Your task to perform on an android device: Do I have any events today? Image 0: 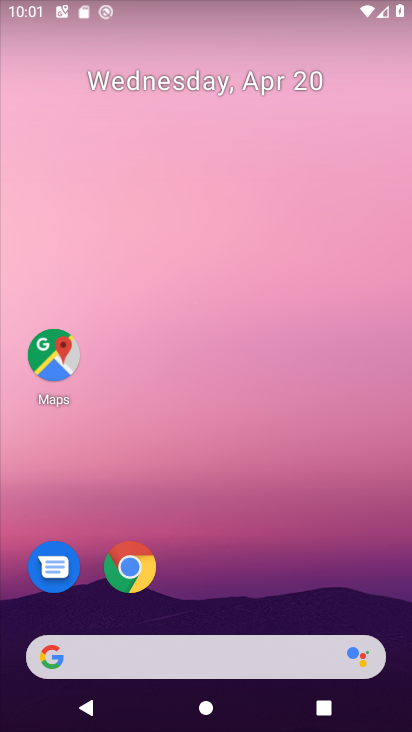
Step 0: drag from (323, 559) to (379, 173)
Your task to perform on an android device: Do I have any events today? Image 1: 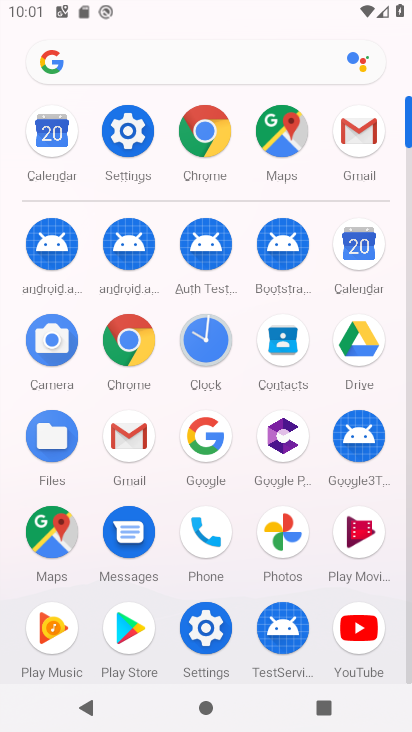
Step 1: click (353, 257)
Your task to perform on an android device: Do I have any events today? Image 2: 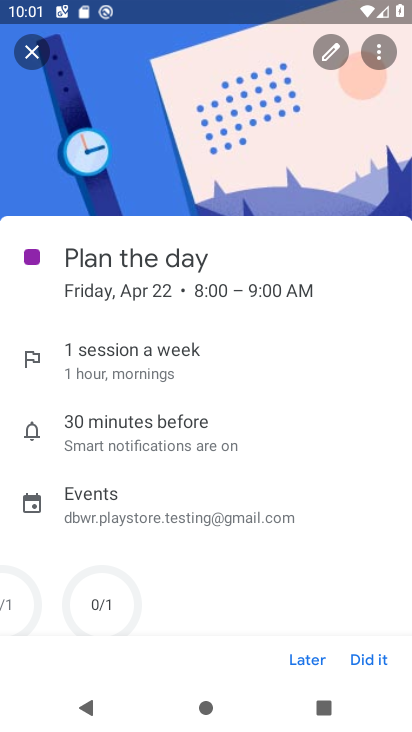
Step 2: click (27, 54)
Your task to perform on an android device: Do I have any events today? Image 3: 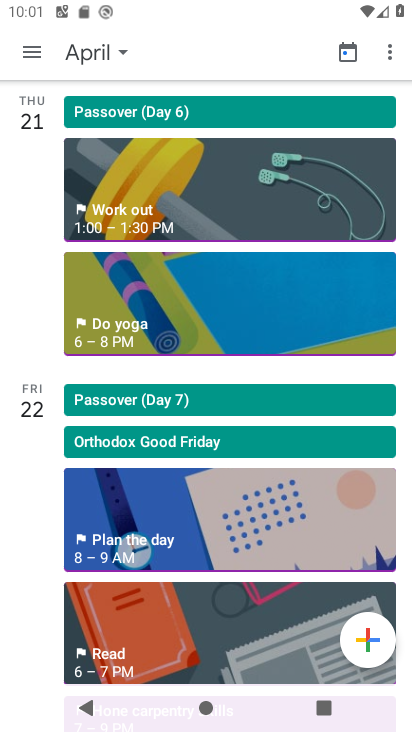
Step 3: click (220, 192)
Your task to perform on an android device: Do I have any events today? Image 4: 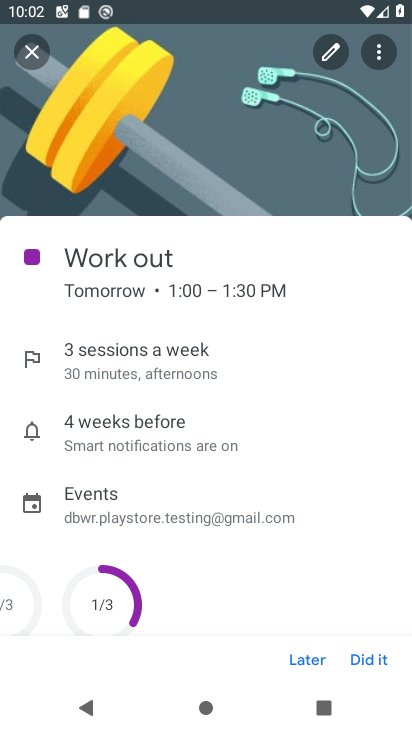
Step 4: task complete